Your task to perform on an android device: Open Yahoo.com Image 0: 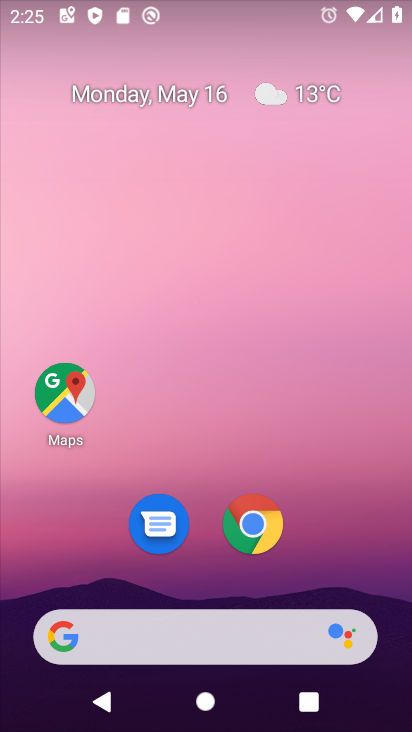
Step 0: click (252, 634)
Your task to perform on an android device: Open Yahoo.com Image 1: 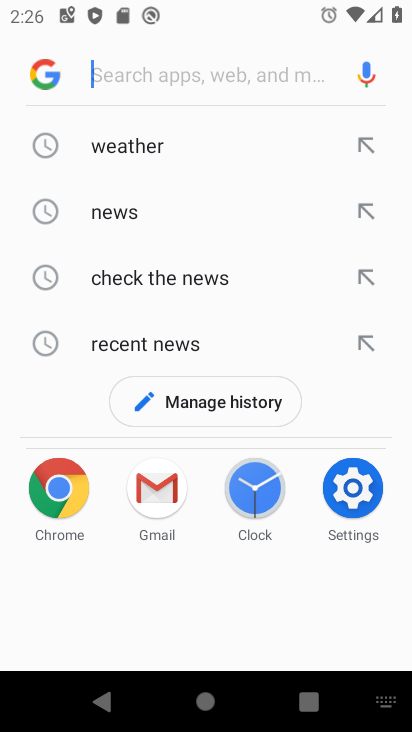
Step 1: type "yahoo.com"
Your task to perform on an android device: Open Yahoo.com Image 2: 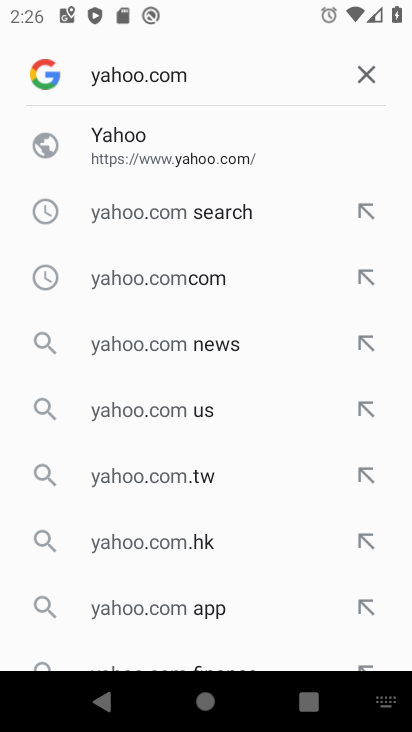
Step 2: click (97, 128)
Your task to perform on an android device: Open Yahoo.com Image 3: 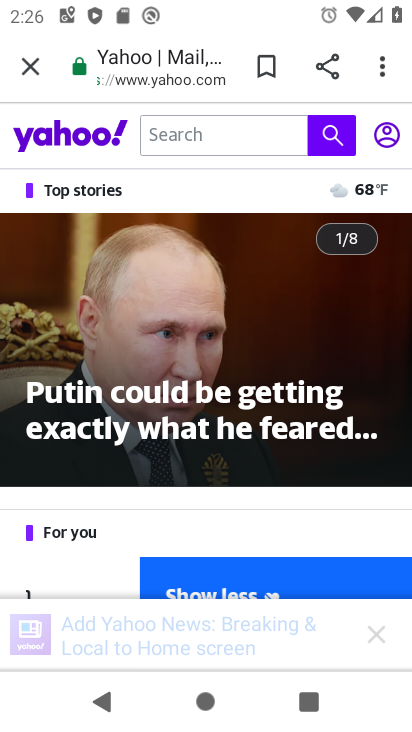
Step 3: click (305, 399)
Your task to perform on an android device: Open Yahoo.com Image 4: 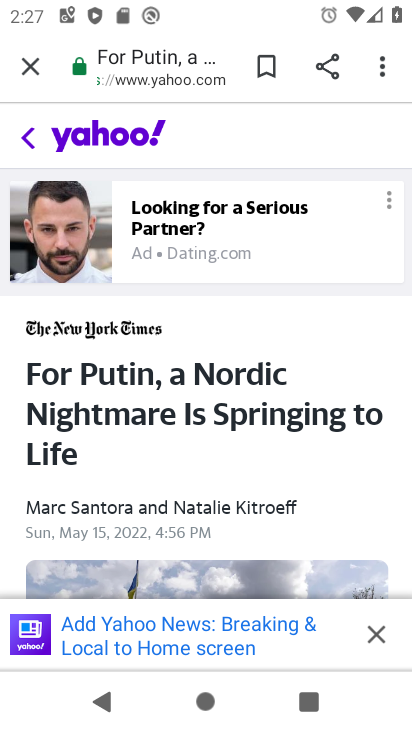
Step 4: task complete